Your task to perform on an android device: Open display settings Image 0: 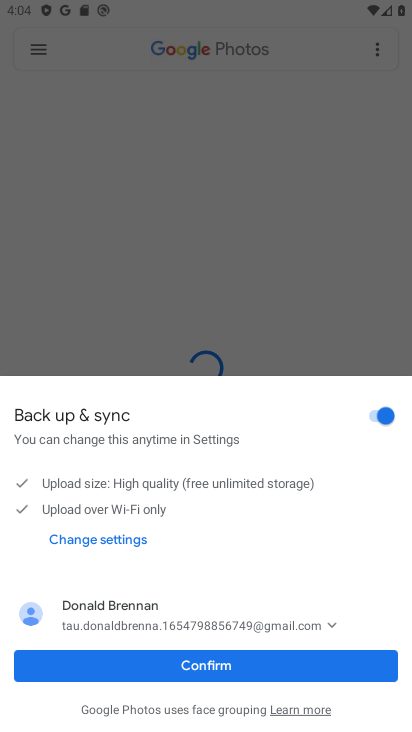
Step 0: press home button
Your task to perform on an android device: Open display settings Image 1: 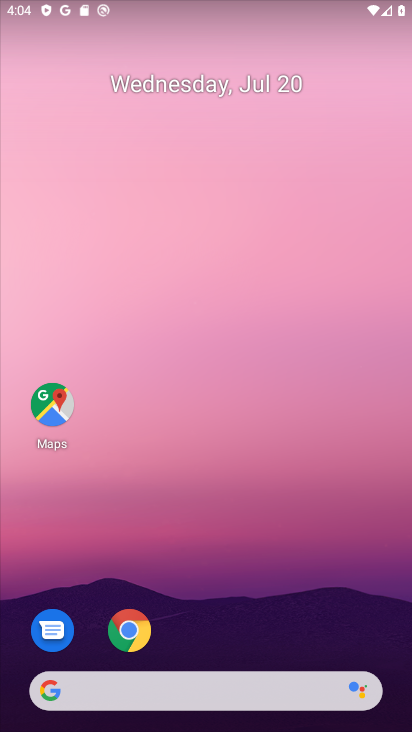
Step 1: drag from (137, 539) to (138, 225)
Your task to perform on an android device: Open display settings Image 2: 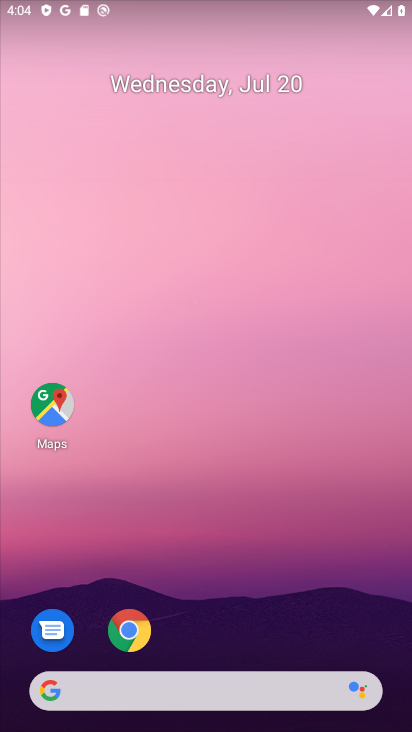
Step 2: drag from (257, 627) to (235, 85)
Your task to perform on an android device: Open display settings Image 3: 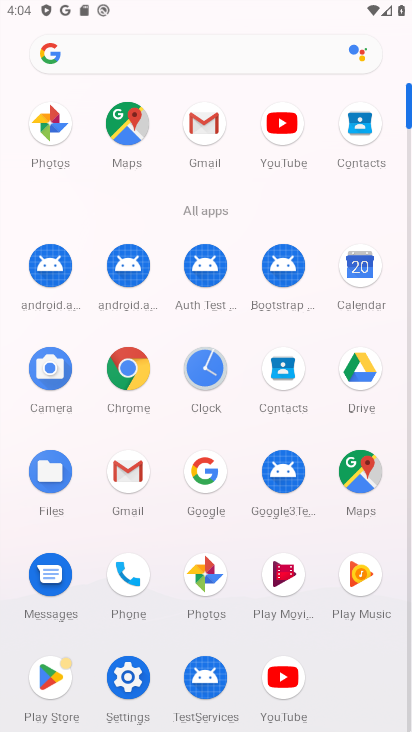
Step 3: click (126, 687)
Your task to perform on an android device: Open display settings Image 4: 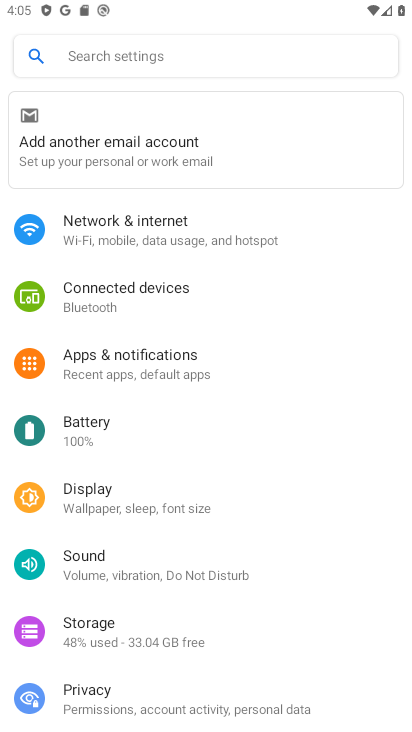
Step 4: click (102, 491)
Your task to perform on an android device: Open display settings Image 5: 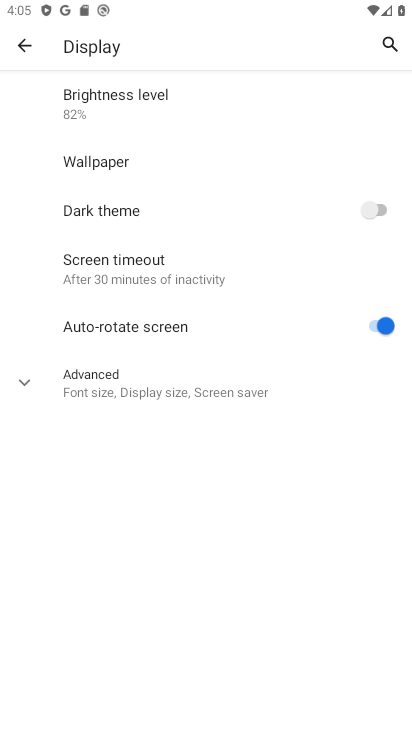
Step 5: click (86, 377)
Your task to perform on an android device: Open display settings Image 6: 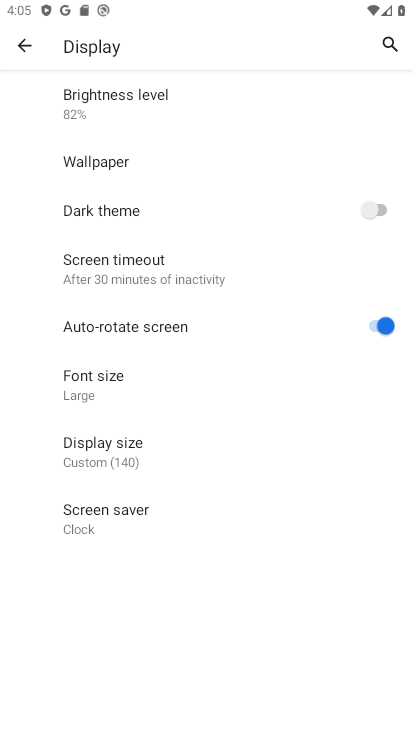
Step 6: task complete